Your task to perform on an android device: toggle show notifications on the lock screen Image 0: 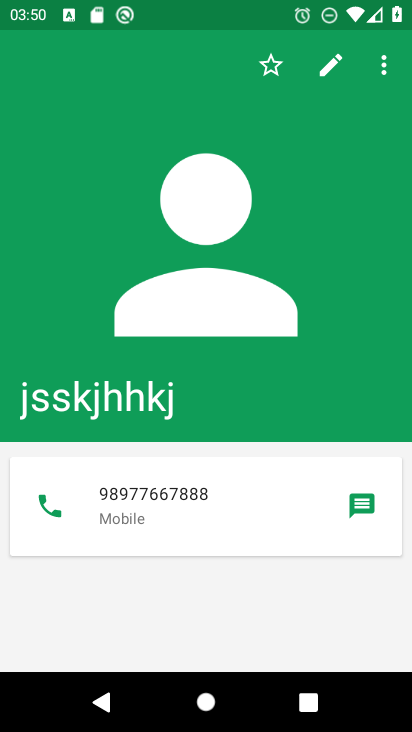
Step 0: press home button
Your task to perform on an android device: toggle show notifications on the lock screen Image 1: 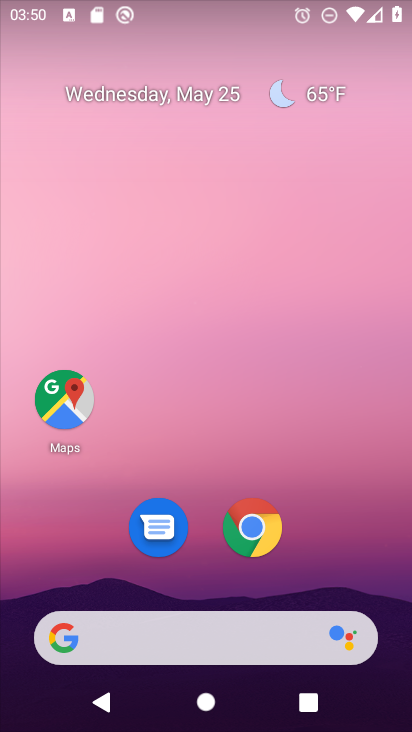
Step 1: drag from (330, 587) to (380, 0)
Your task to perform on an android device: toggle show notifications on the lock screen Image 2: 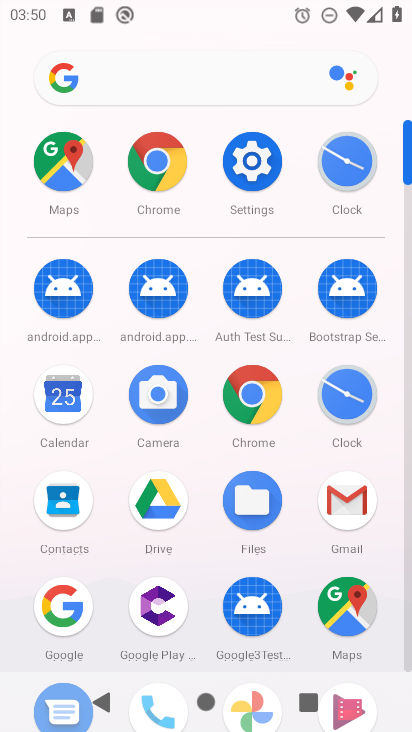
Step 2: click (260, 168)
Your task to perform on an android device: toggle show notifications on the lock screen Image 3: 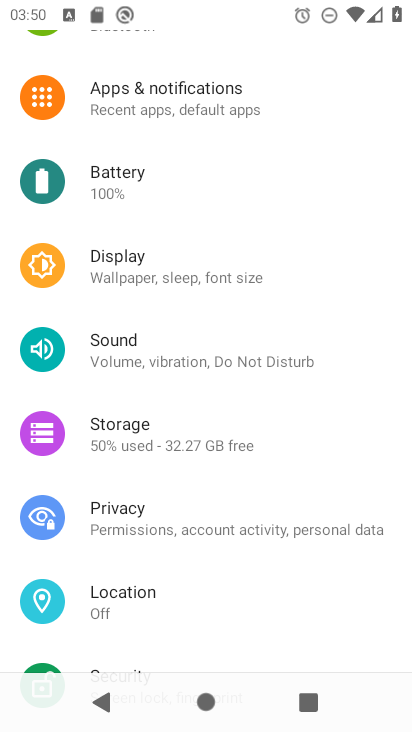
Step 3: click (166, 114)
Your task to perform on an android device: toggle show notifications on the lock screen Image 4: 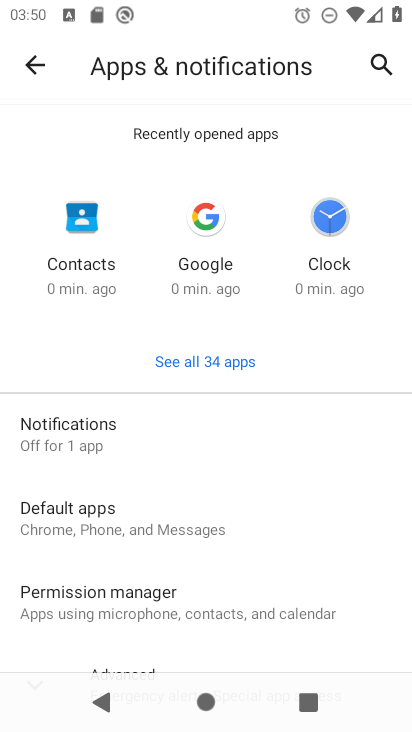
Step 4: click (101, 424)
Your task to perform on an android device: toggle show notifications on the lock screen Image 5: 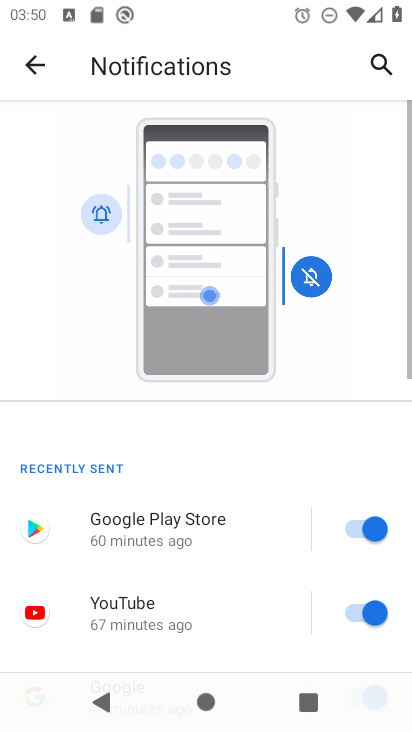
Step 5: drag from (230, 603) to (271, 128)
Your task to perform on an android device: toggle show notifications on the lock screen Image 6: 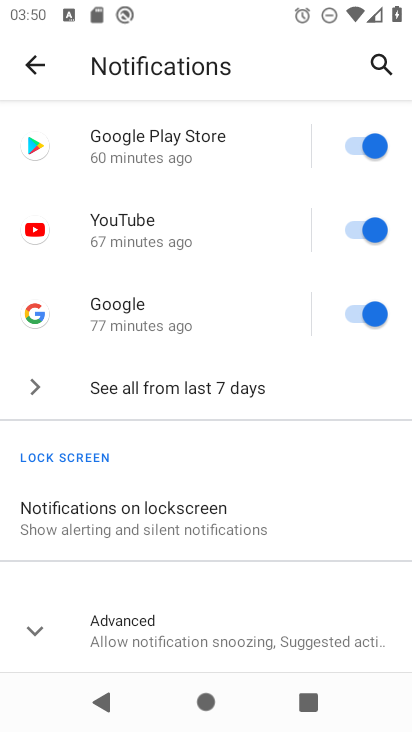
Step 6: click (209, 525)
Your task to perform on an android device: toggle show notifications on the lock screen Image 7: 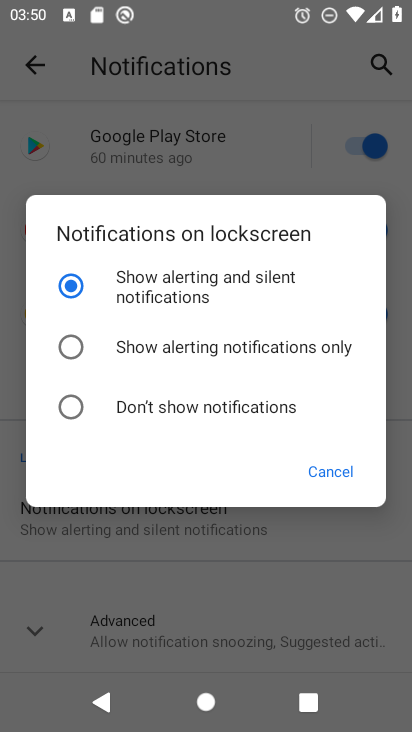
Step 7: click (69, 354)
Your task to perform on an android device: toggle show notifications on the lock screen Image 8: 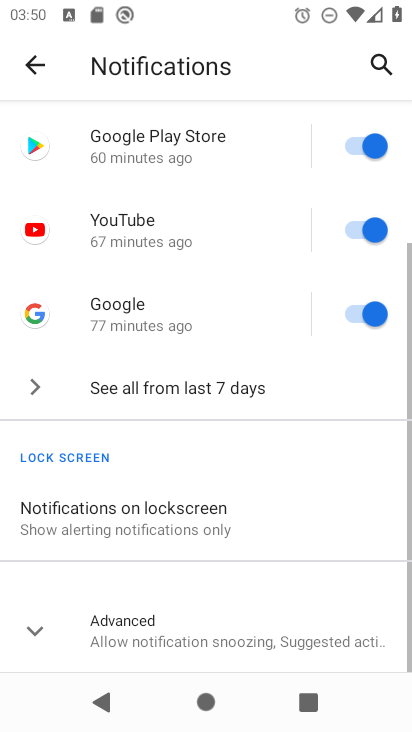
Step 8: task complete